Your task to perform on an android device: Go to Android settings Image 0: 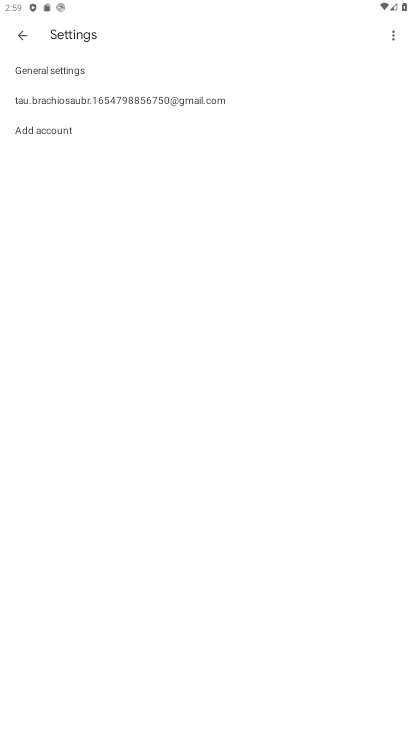
Step 0: press home button
Your task to perform on an android device: Go to Android settings Image 1: 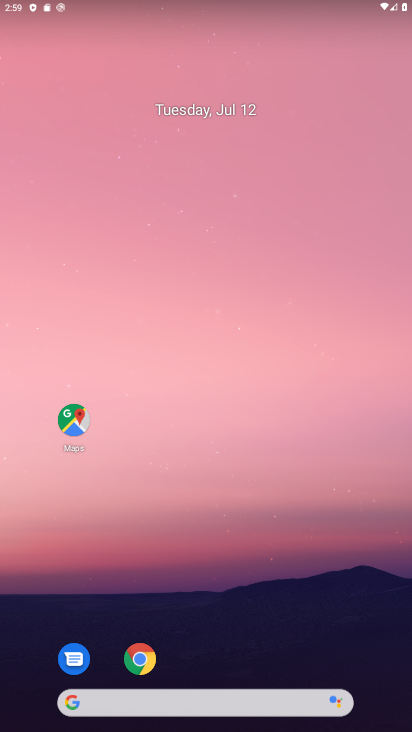
Step 1: drag from (235, 640) to (236, 26)
Your task to perform on an android device: Go to Android settings Image 2: 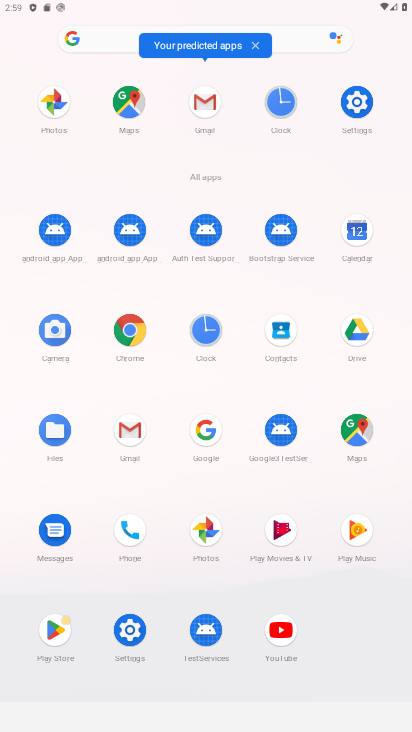
Step 2: click (355, 112)
Your task to perform on an android device: Go to Android settings Image 3: 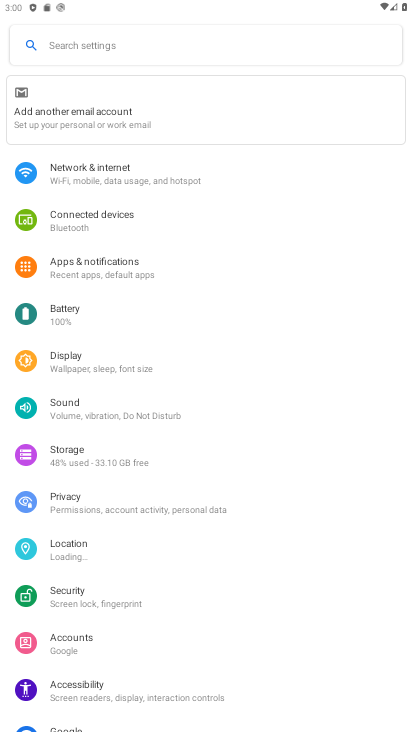
Step 3: task complete